Your task to perform on an android device: Open Google Chrome Image 0: 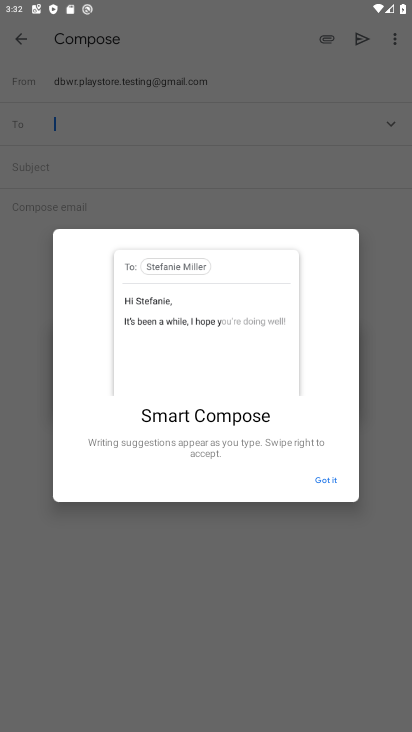
Step 0: press home button
Your task to perform on an android device: Open Google Chrome Image 1: 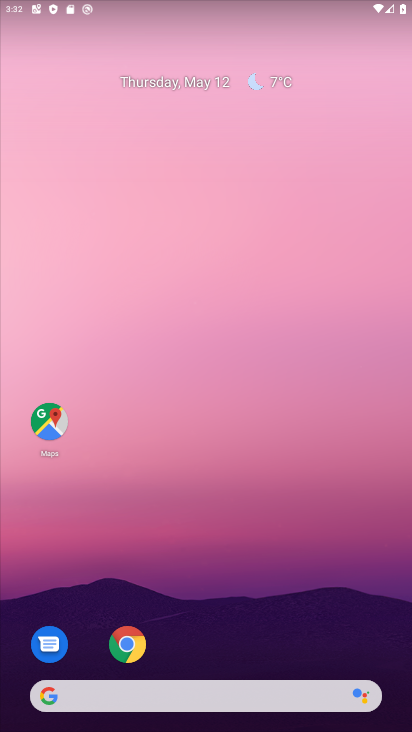
Step 1: drag from (237, 644) to (279, 85)
Your task to perform on an android device: Open Google Chrome Image 2: 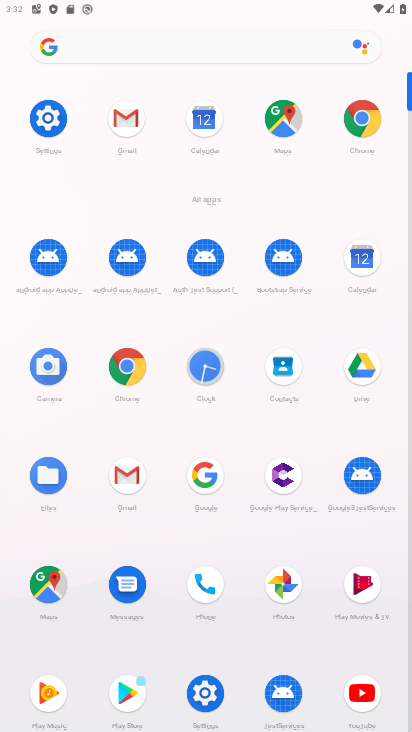
Step 2: click (363, 117)
Your task to perform on an android device: Open Google Chrome Image 3: 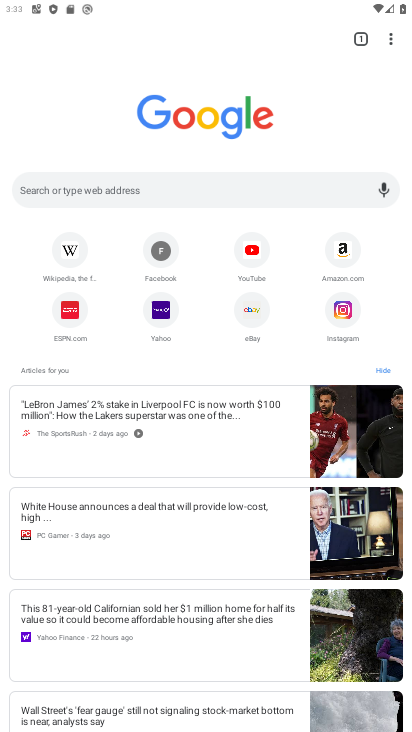
Step 3: task complete